Your task to perform on an android device: Open eBay Image 0: 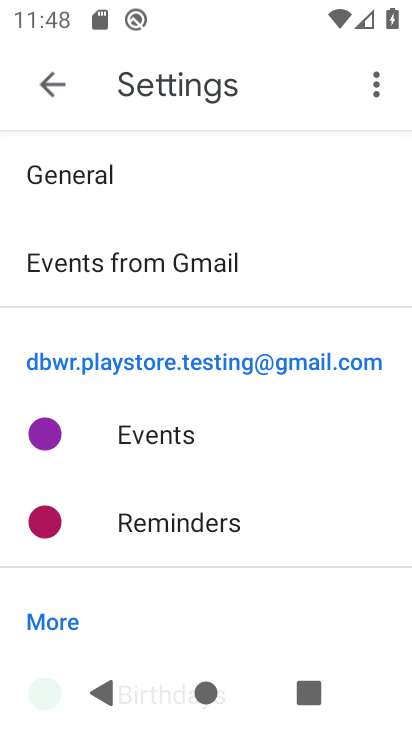
Step 0: press home button
Your task to perform on an android device: Open eBay Image 1: 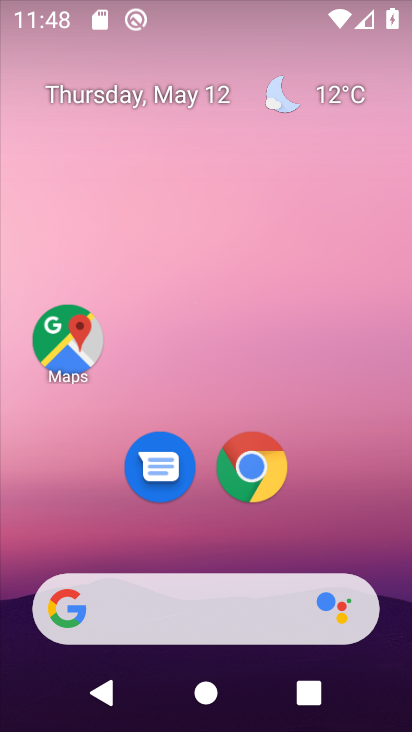
Step 1: click (255, 463)
Your task to perform on an android device: Open eBay Image 2: 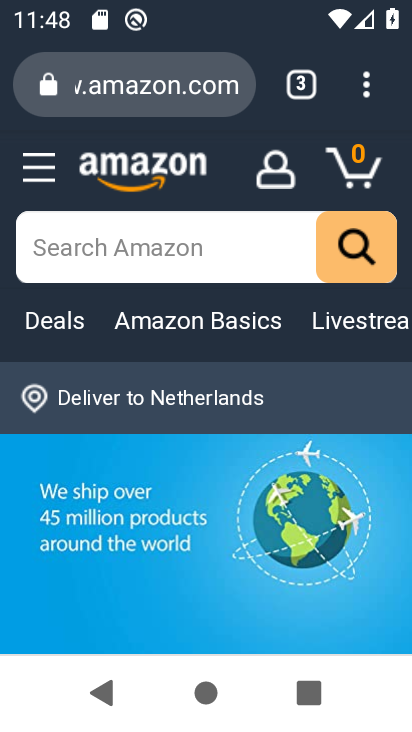
Step 2: click (302, 84)
Your task to perform on an android device: Open eBay Image 3: 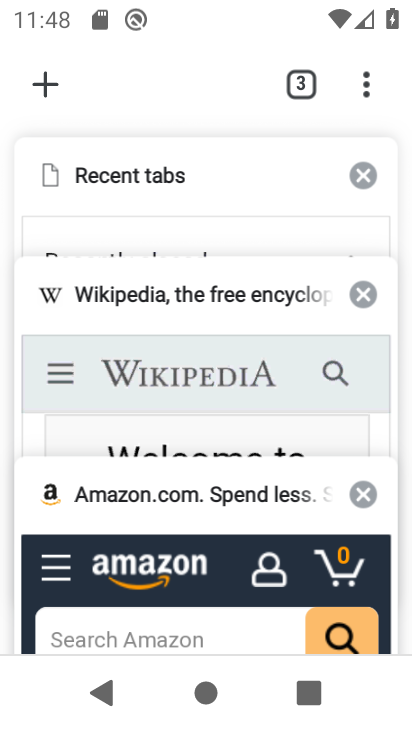
Step 3: click (36, 81)
Your task to perform on an android device: Open eBay Image 4: 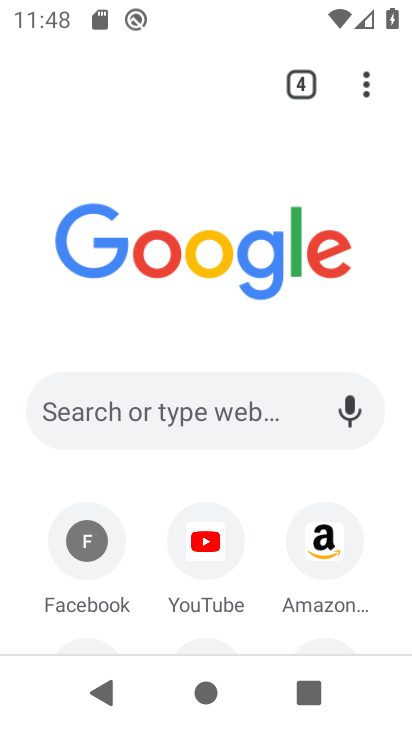
Step 4: drag from (269, 571) to (234, 256)
Your task to perform on an android device: Open eBay Image 5: 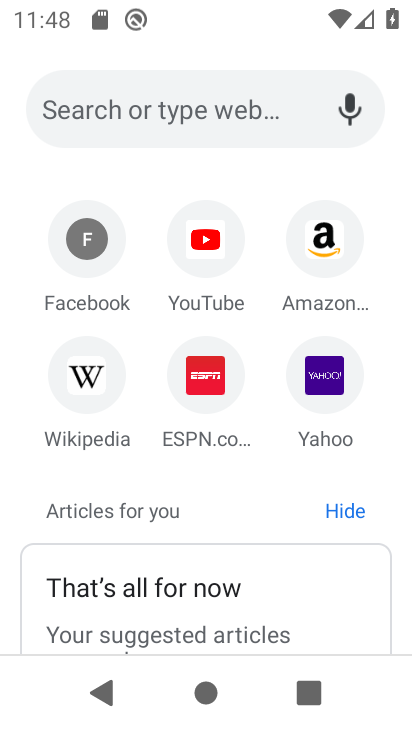
Step 5: click (191, 100)
Your task to perform on an android device: Open eBay Image 6: 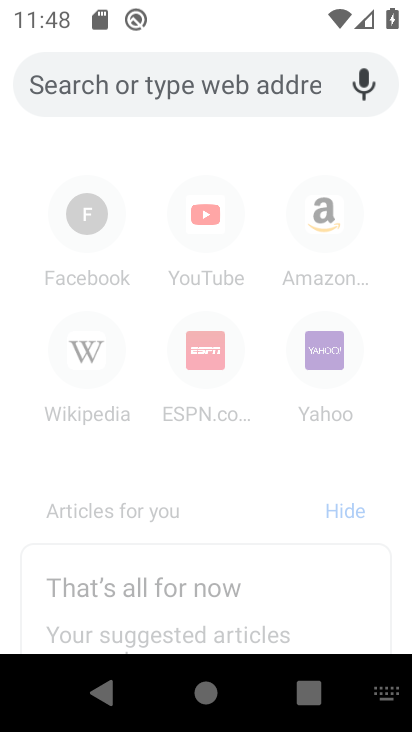
Step 6: type "eBay"
Your task to perform on an android device: Open eBay Image 7: 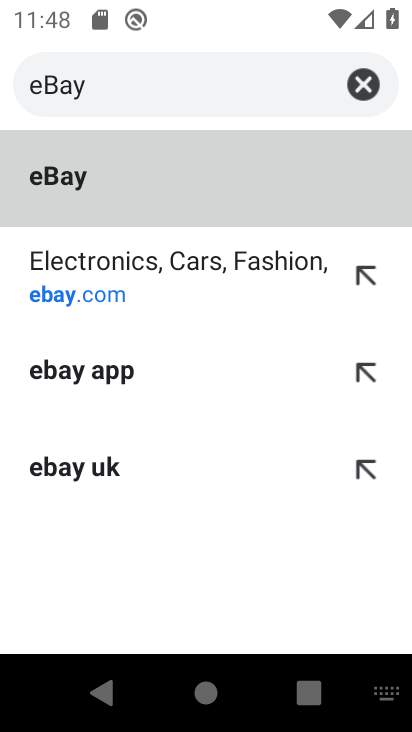
Step 7: click (117, 182)
Your task to perform on an android device: Open eBay Image 8: 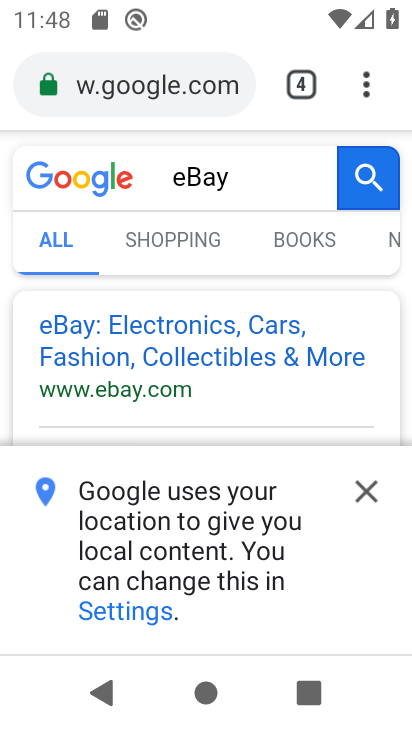
Step 8: click (152, 325)
Your task to perform on an android device: Open eBay Image 9: 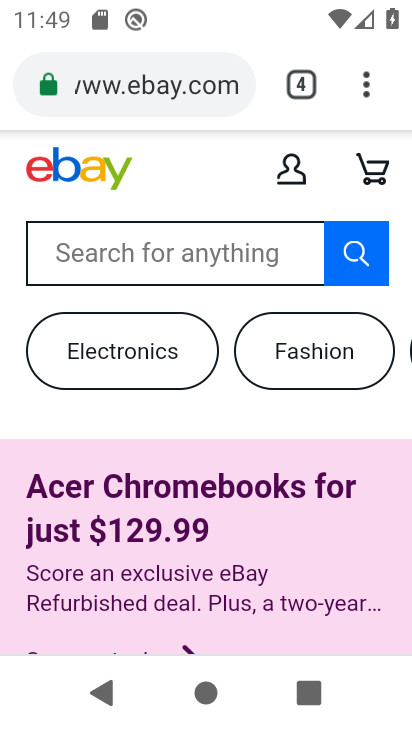
Step 9: task complete